Your task to perform on an android device: Open my contact list Image 0: 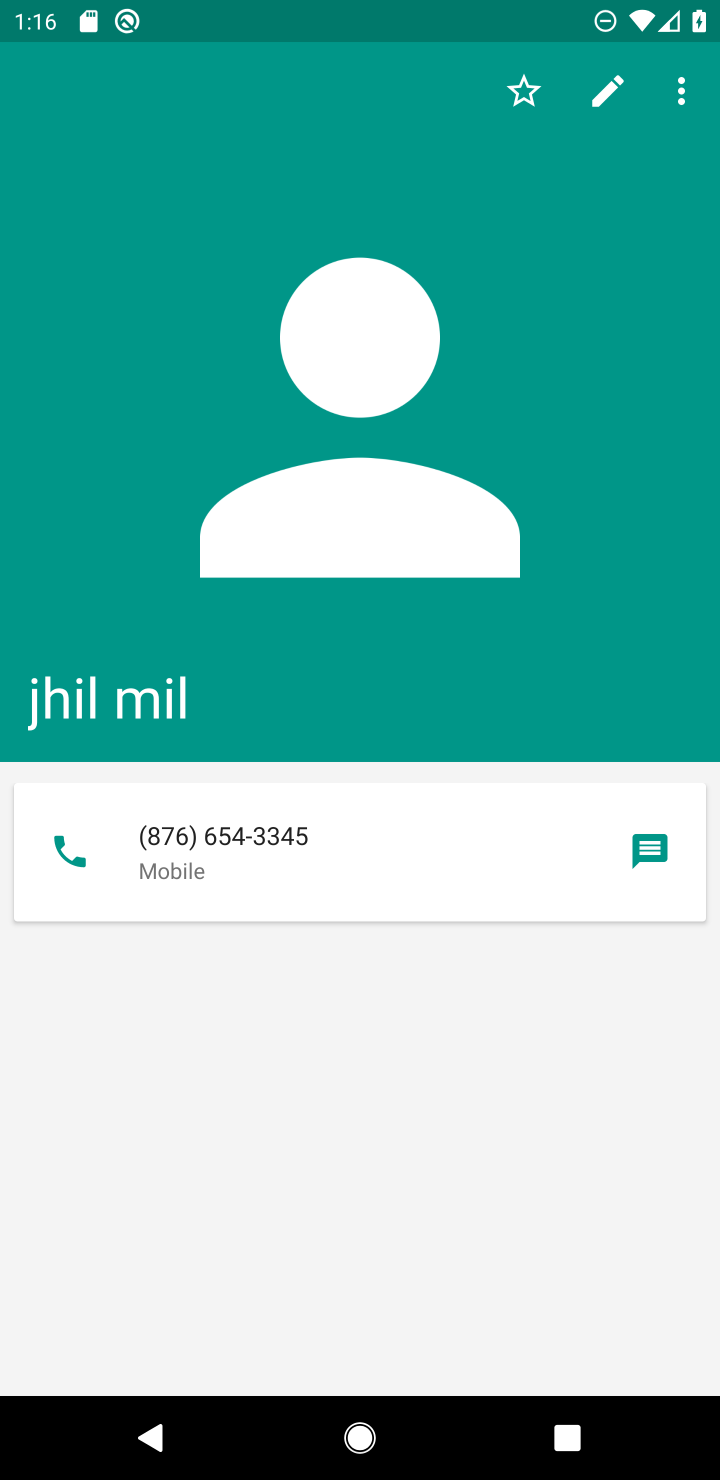
Step 0: press home button
Your task to perform on an android device: Open my contact list Image 1: 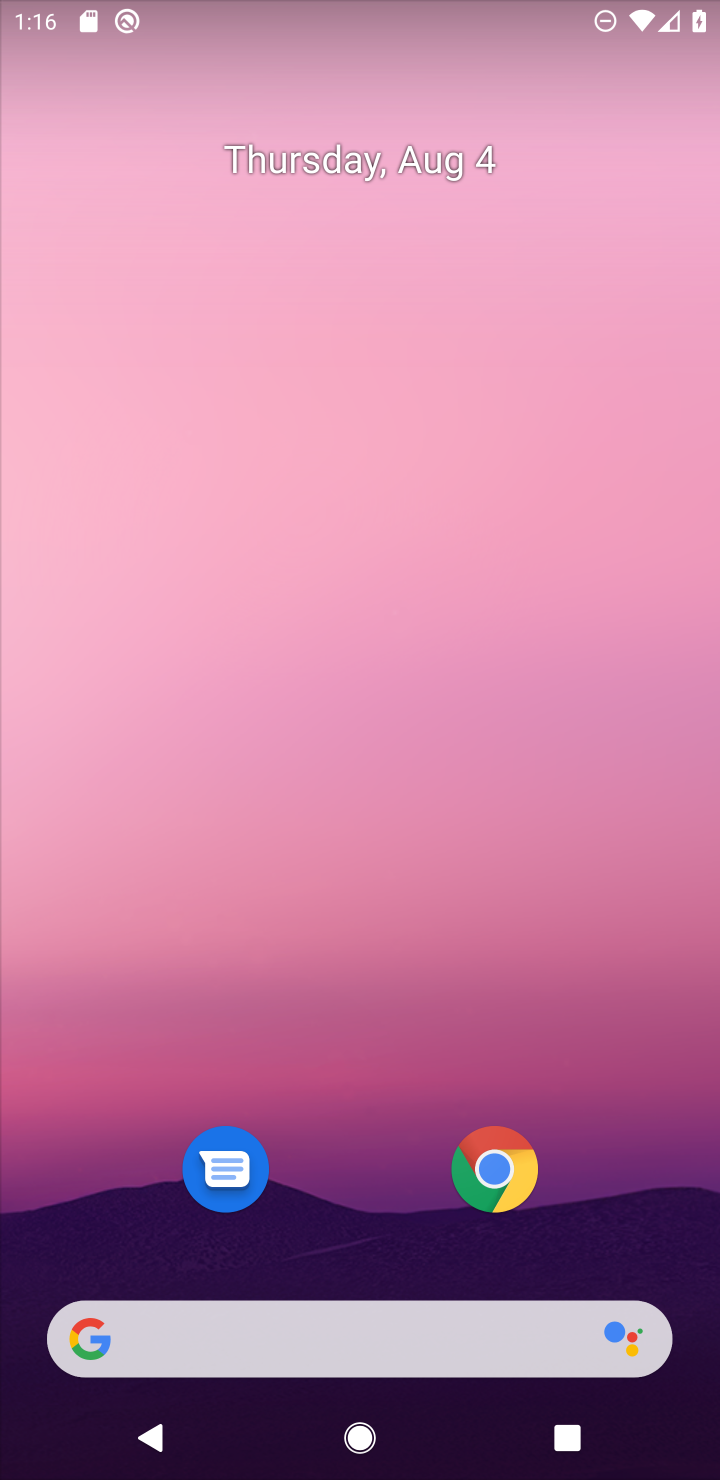
Step 1: drag from (392, 1195) to (366, 88)
Your task to perform on an android device: Open my contact list Image 2: 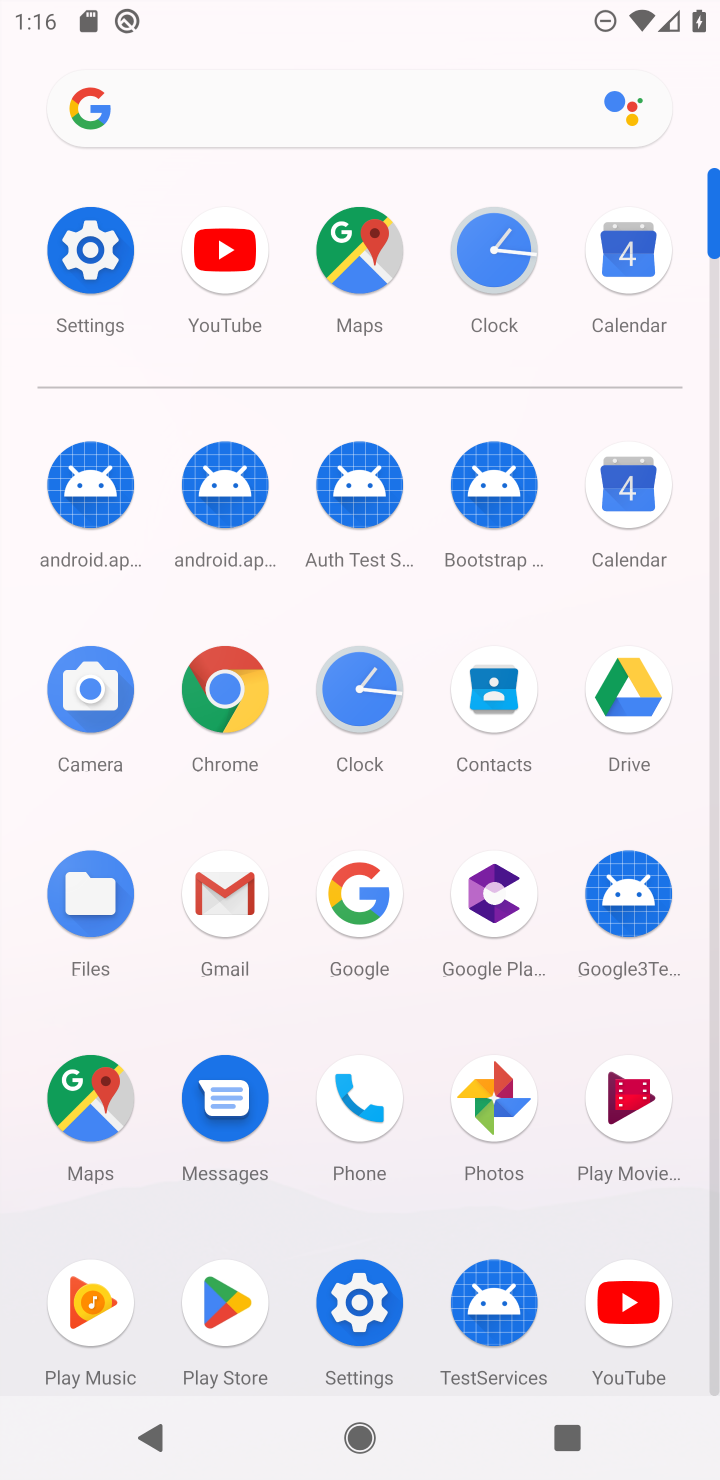
Step 2: click (487, 695)
Your task to perform on an android device: Open my contact list Image 3: 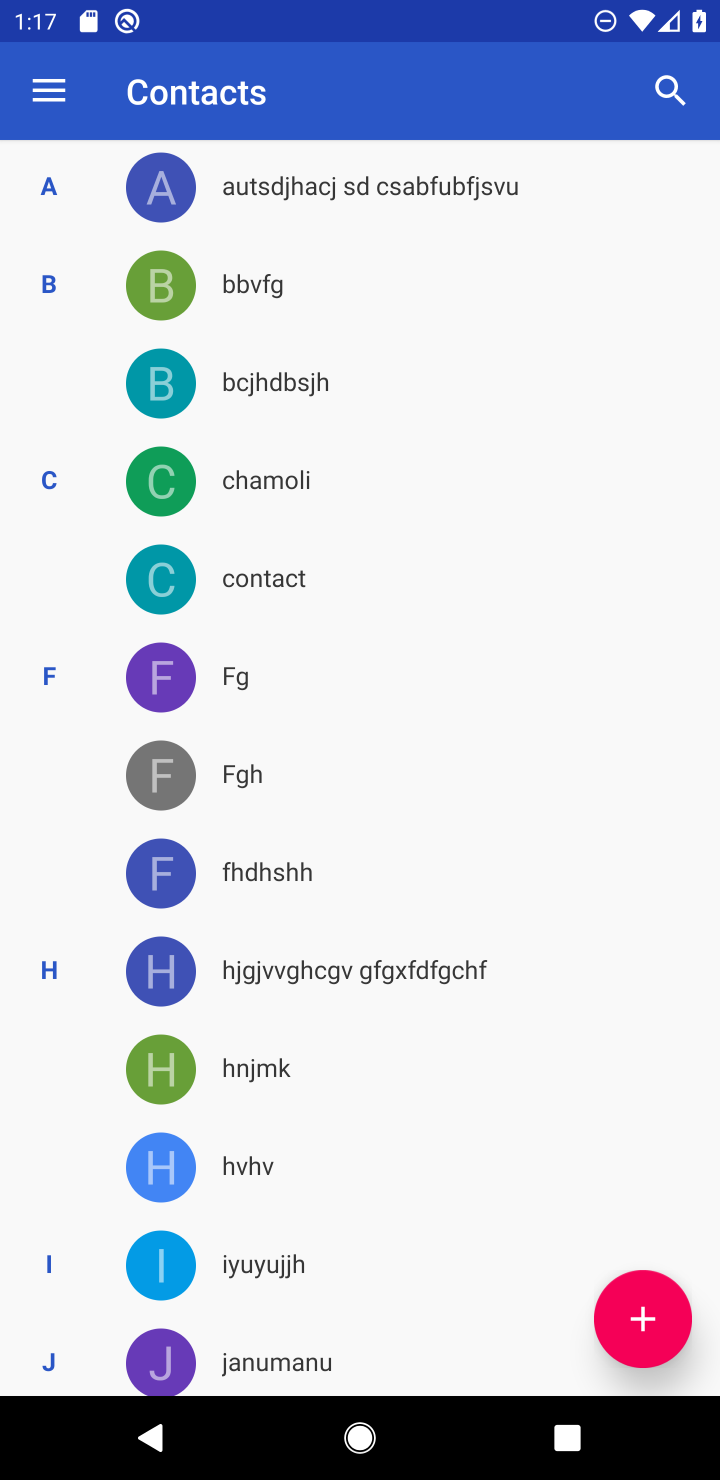
Step 3: task complete